Your task to perform on an android device: turn vacation reply on in the gmail app Image 0: 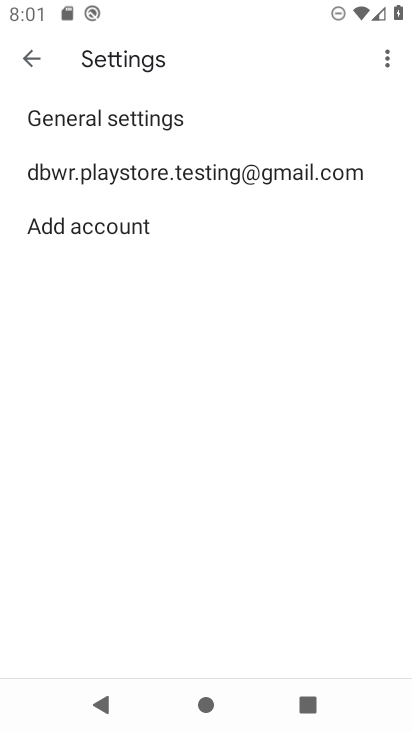
Step 0: press home button
Your task to perform on an android device: turn vacation reply on in the gmail app Image 1: 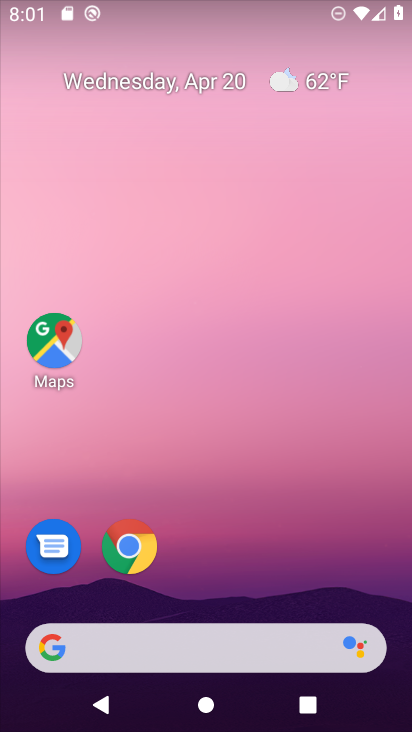
Step 1: drag from (232, 583) to (205, 118)
Your task to perform on an android device: turn vacation reply on in the gmail app Image 2: 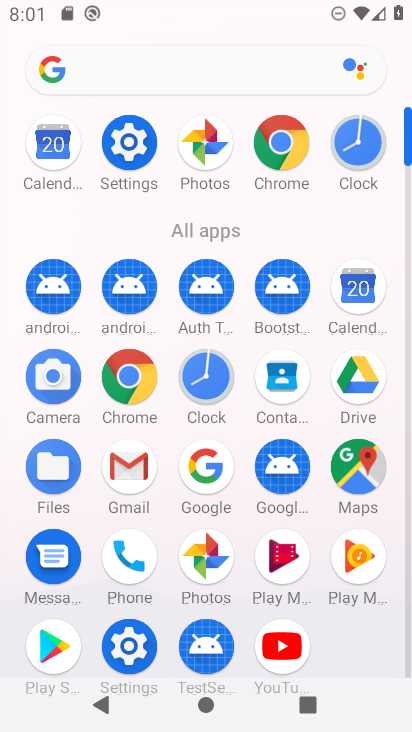
Step 2: click (124, 457)
Your task to perform on an android device: turn vacation reply on in the gmail app Image 3: 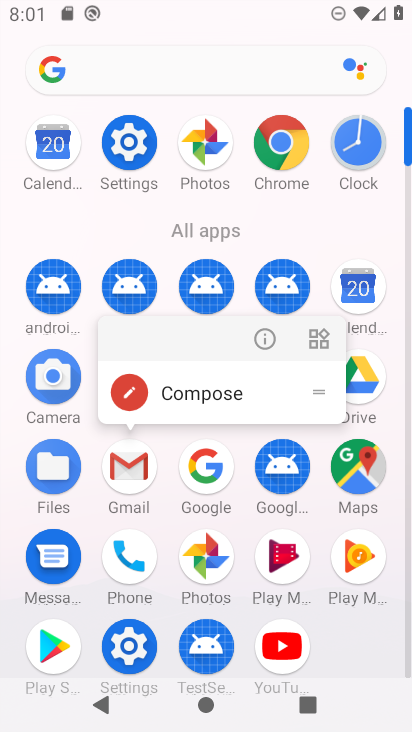
Step 3: click (124, 458)
Your task to perform on an android device: turn vacation reply on in the gmail app Image 4: 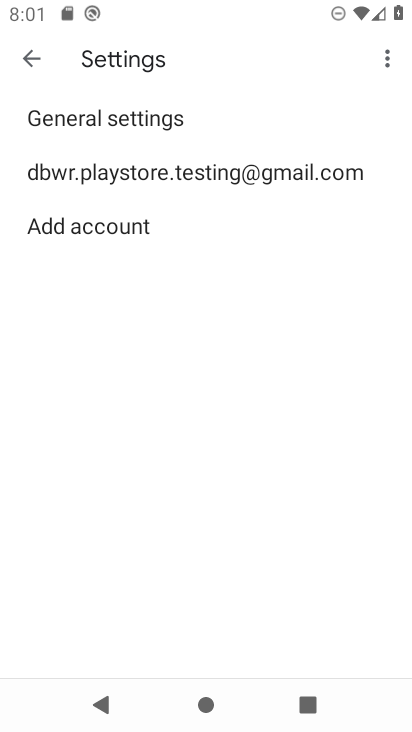
Step 4: click (306, 158)
Your task to perform on an android device: turn vacation reply on in the gmail app Image 5: 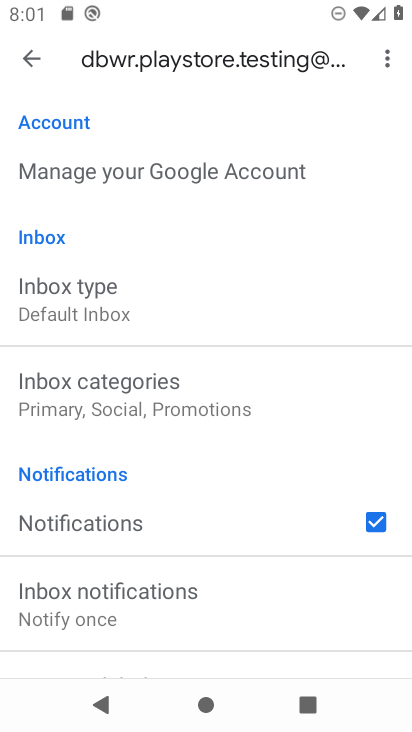
Step 5: drag from (215, 501) to (241, 167)
Your task to perform on an android device: turn vacation reply on in the gmail app Image 6: 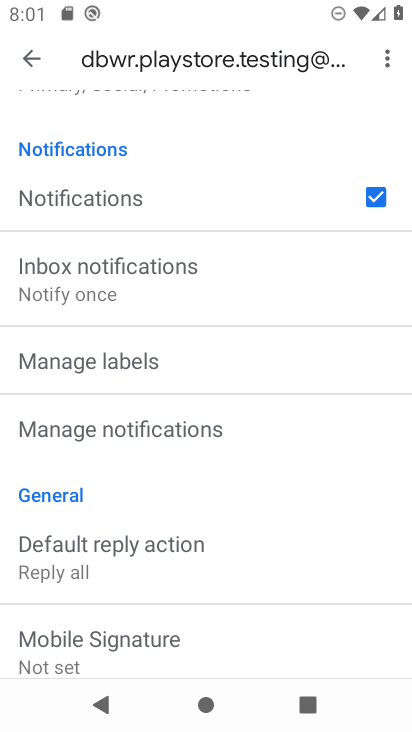
Step 6: drag from (212, 513) to (233, 155)
Your task to perform on an android device: turn vacation reply on in the gmail app Image 7: 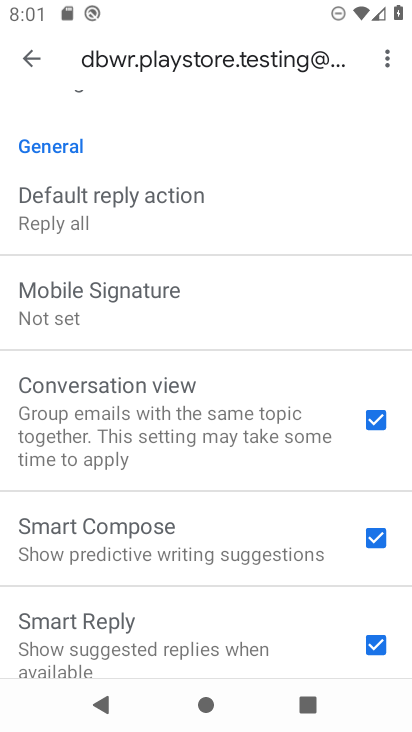
Step 7: drag from (216, 604) to (225, 179)
Your task to perform on an android device: turn vacation reply on in the gmail app Image 8: 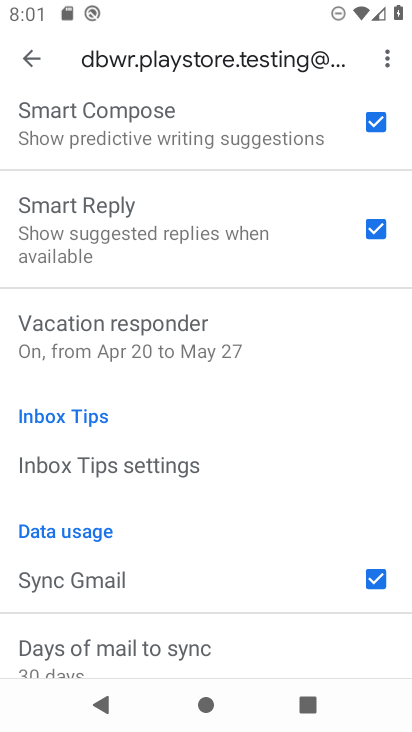
Step 8: click (252, 322)
Your task to perform on an android device: turn vacation reply on in the gmail app Image 9: 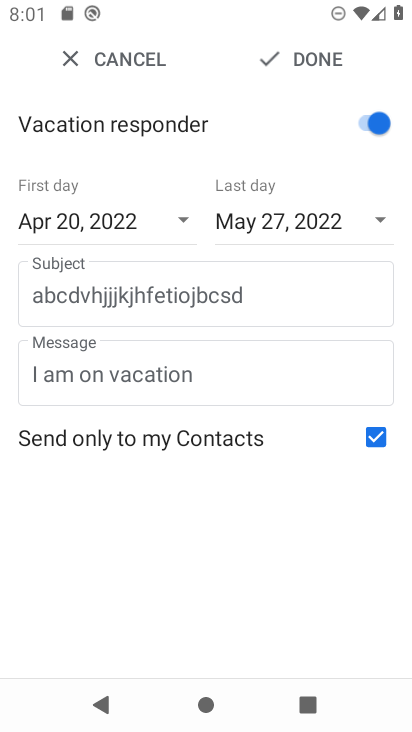
Step 9: task complete